Your task to perform on an android device: check battery use Image 0: 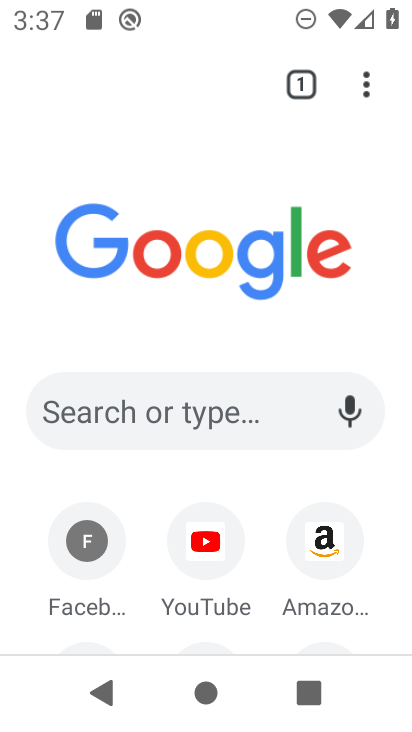
Step 0: press home button
Your task to perform on an android device: check battery use Image 1: 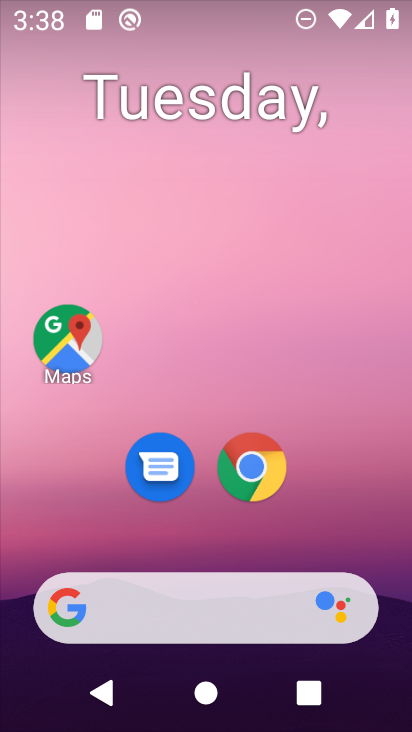
Step 1: drag from (216, 564) to (122, 2)
Your task to perform on an android device: check battery use Image 2: 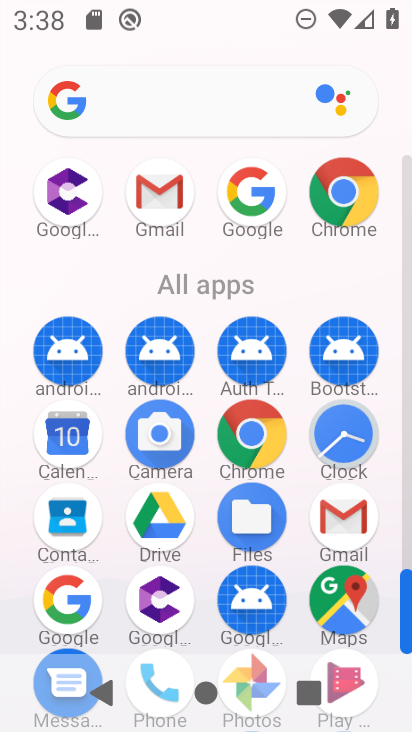
Step 2: drag from (216, 564) to (184, 78)
Your task to perform on an android device: check battery use Image 3: 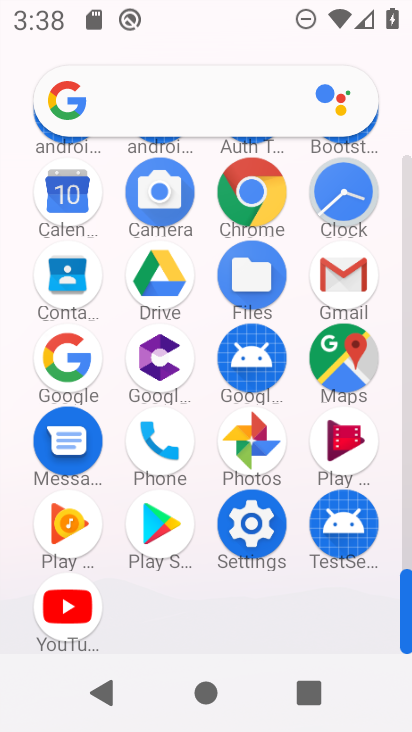
Step 3: click (250, 537)
Your task to perform on an android device: check battery use Image 4: 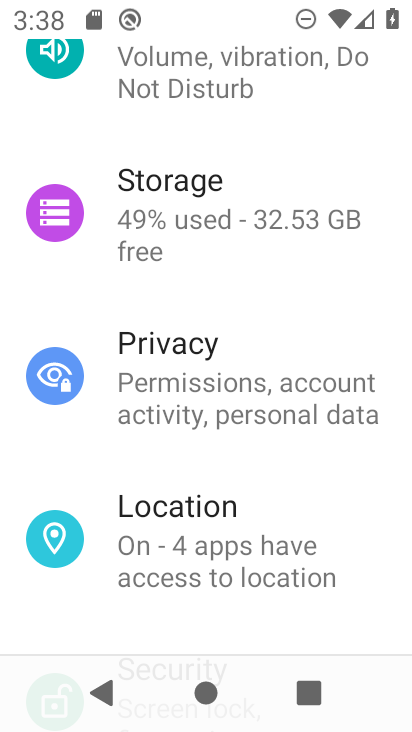
Step 4: drag from (273, 459) to (205, 9)
Your task to perform on an android device: check battery use Image 5: 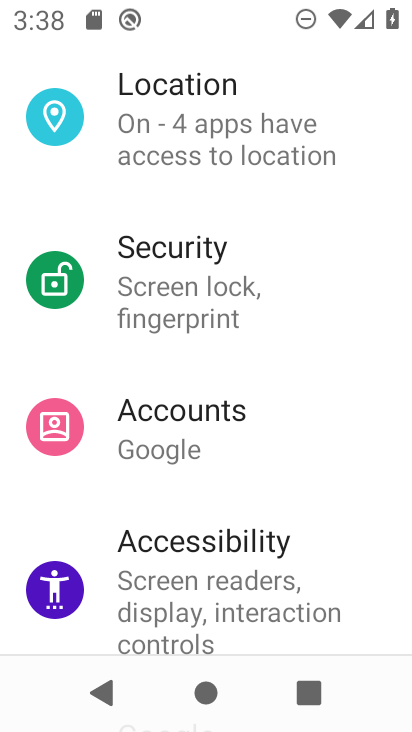
Step 5: drag from (257, 544) to (255, 724)
Your task to perform on an android device: check battery use Image 6: 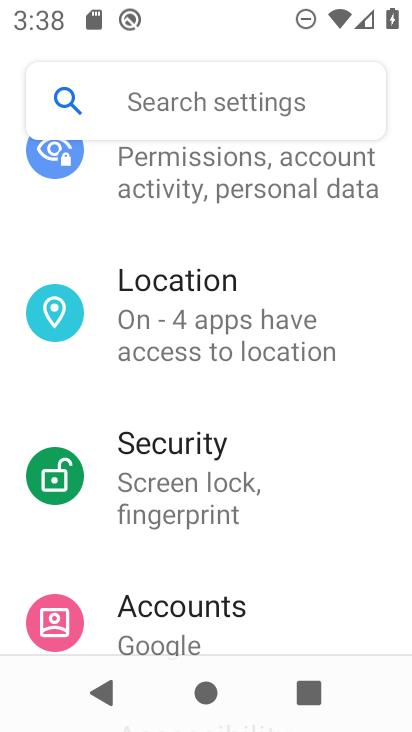
Step 6: drag from (219, 213) to (243, 681)
Your task to perform on an android device: check battery use Image 7: 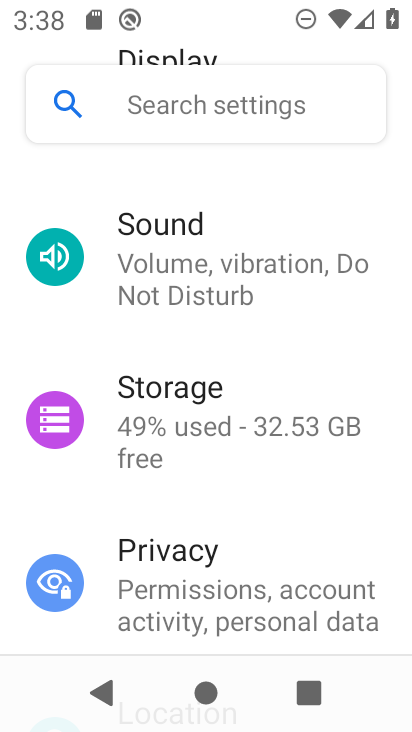
Step 7: drag from (244, 222) to (254, 613)
Your task to perform on an android device: check battery use Image 8: 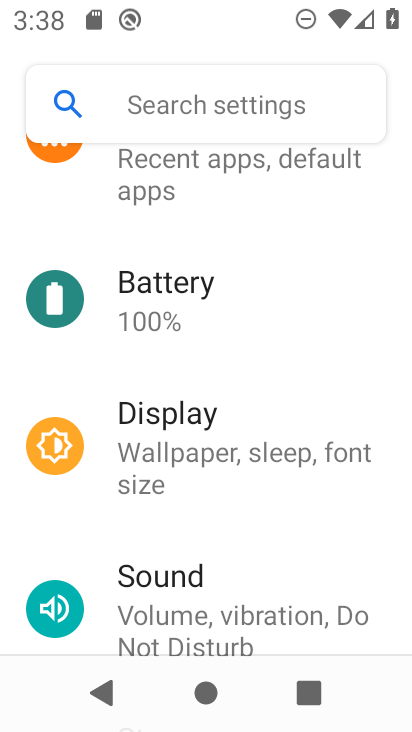
Step 8: click (236, 271)
Your task to perform on an android device: check battery use Image 9: 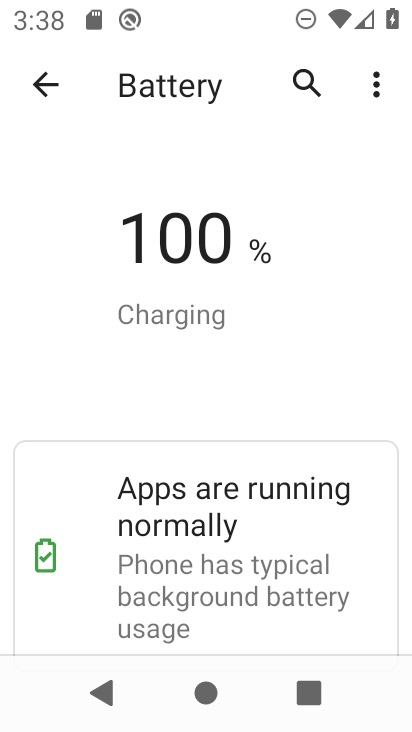
Step 9: task complete